Your task to perform on an android device: toggle airplane mode Image 0: 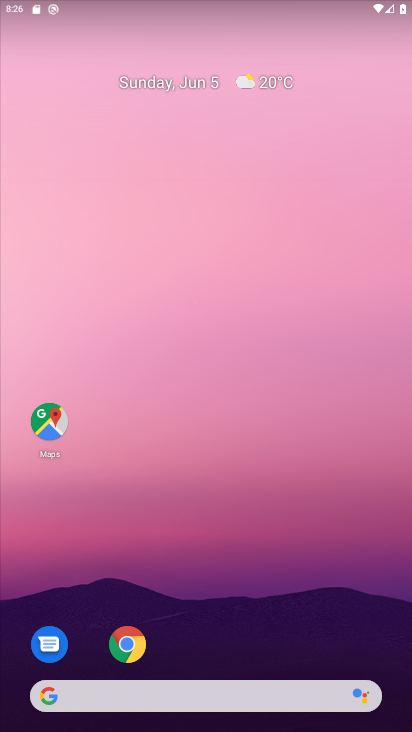
Step 0: drag from (222, 548) to (221, 101)
Your task to perform on an android device: toggle airplane mode Image 1: 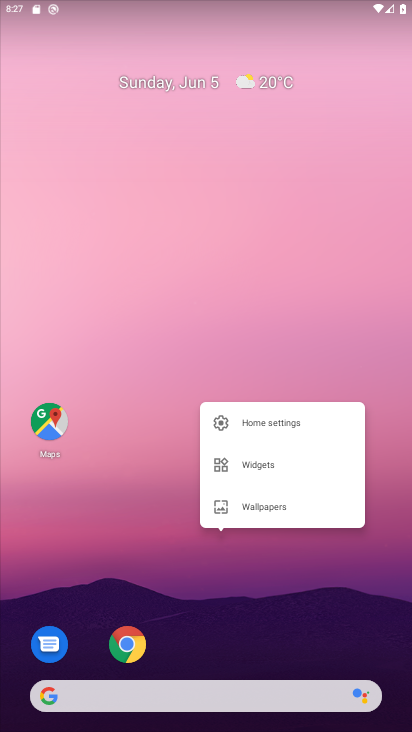
Step 1: drag from (209, 581) to (167, 191)
Your task to perform on an android device: toggle airplane mode Image 2: 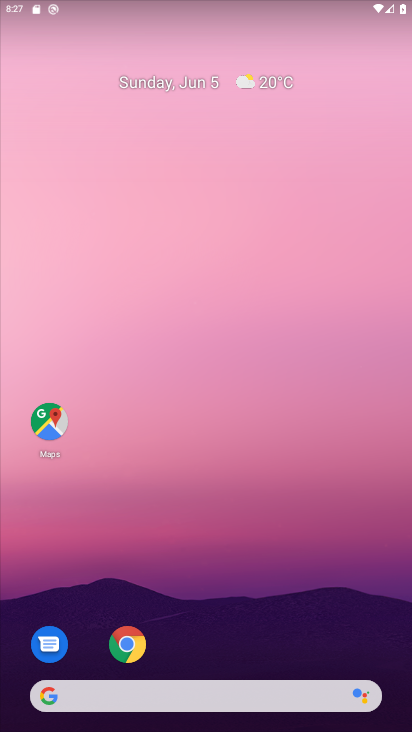
Step 2: drag from (236, 594) to (264, 168)
Your task to perform on an android device: toggle airplane mode Image 3: 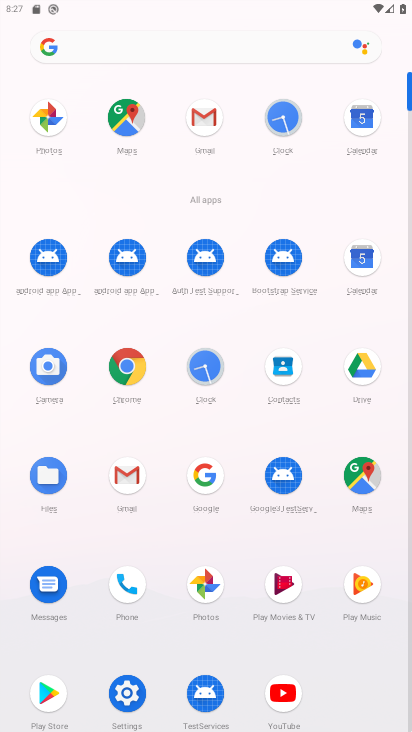
Step 3: click (130, 705)
Your task to perform on an android device: toggle airplane mode Image 4: 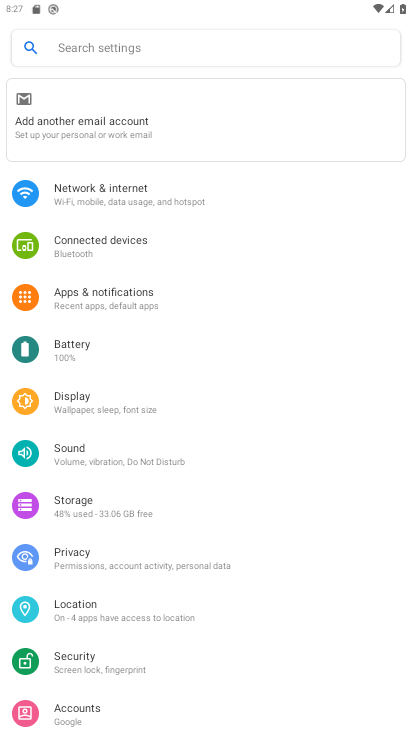
Step 4: click (133, 187)
Your task to perform on an android device: toggle airplane mode Image 5: 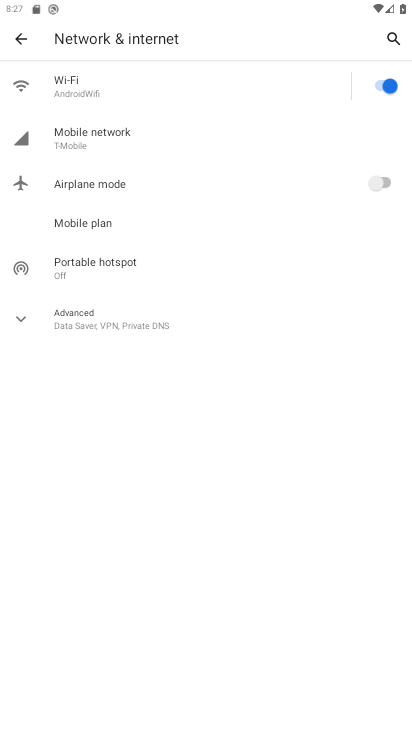
Step 5: click (411, 184)
Your task to perform on an android device: toggle airplane mode Image 6: 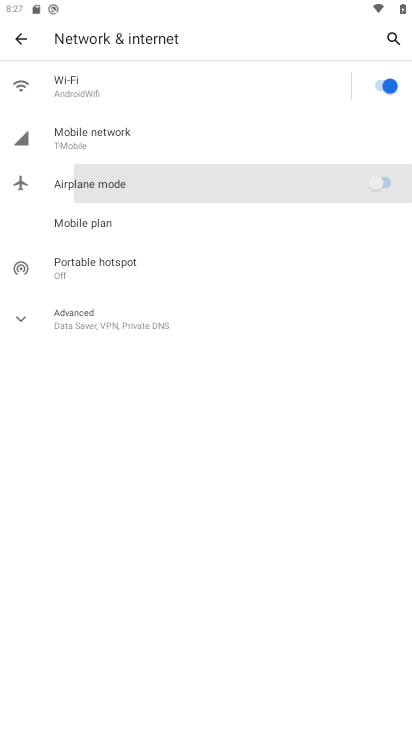
Step 6: click (396, 180)
Your task to perform on an android device: toggle airplane mode Image 7: 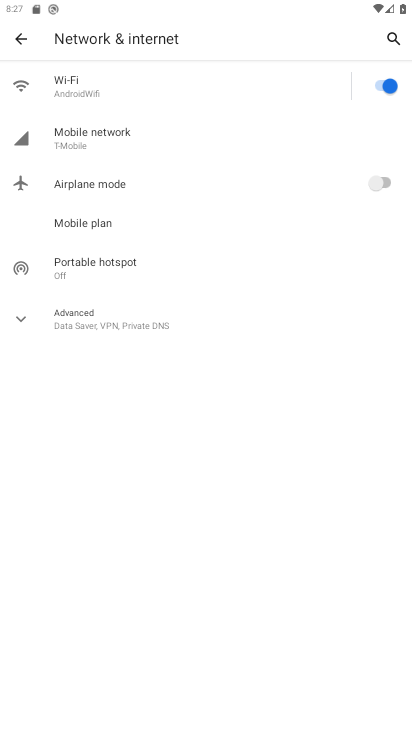
Step 7: task complete